Your task to perform on an android device: remove spam from my inbox in the gmail app Image 0: 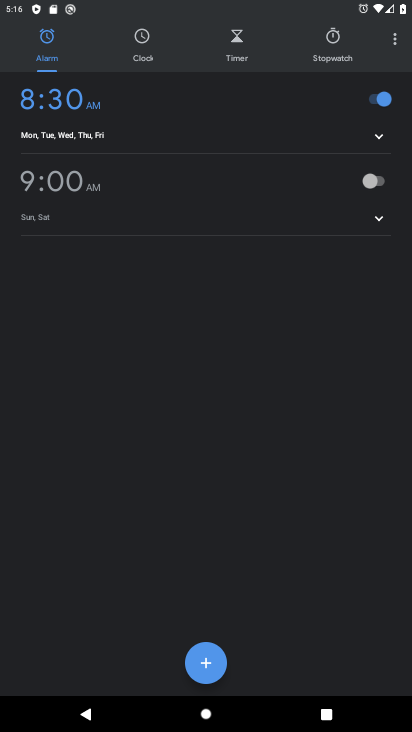
Step 0: press home button
Your task to perform on an android device: remove spam from my inbox in the gmail app Image 1: 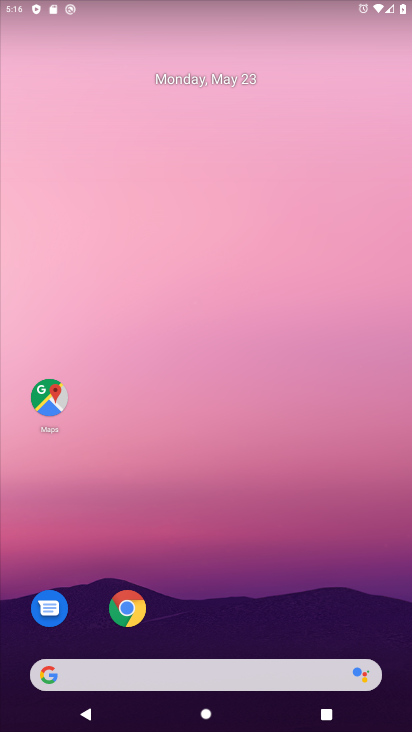
Step 1: drag from (241, 631) to (218, 147)
Your task to perform on an android device: remove spam from my inbox in the gmail app Image 2: 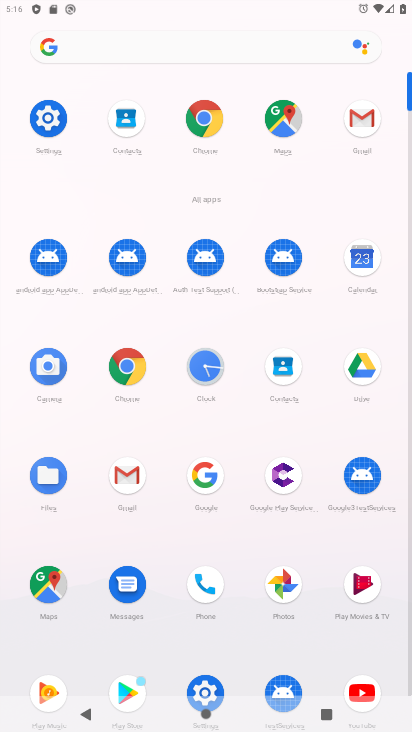
Step 2: click (353, 128)
Your task to perform on an android device: remove spam from my inbox in the gmail app Image 3: 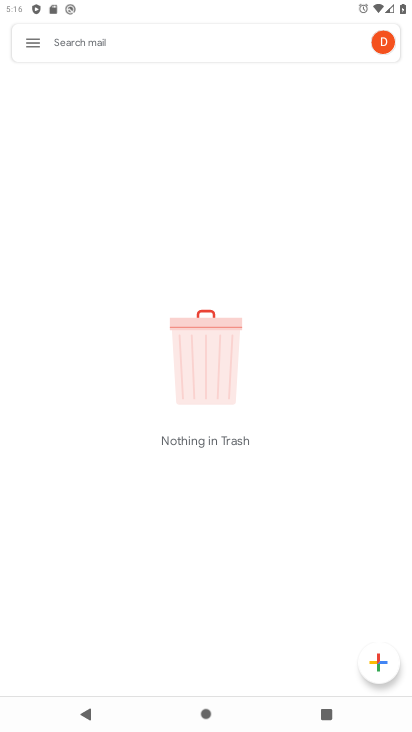
Step 3: click (36, 48)
Your task to perform on an android device: remove spam from my inbox in the gmail app Image 4: 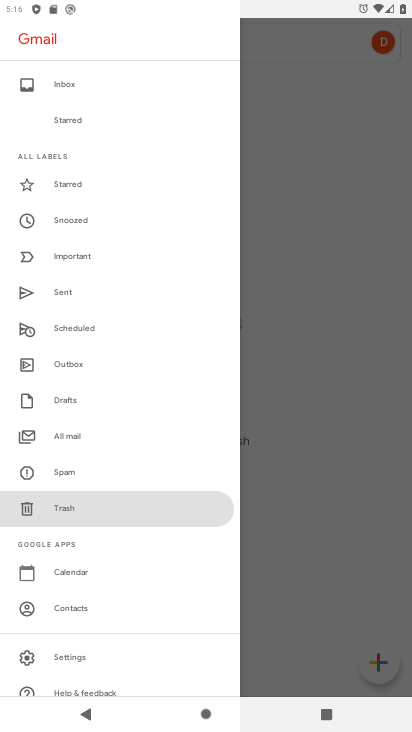
Step 4: click (72, 465)
Your task to perform on an android device: remove spam from my inbox in the gmail app Image 5: 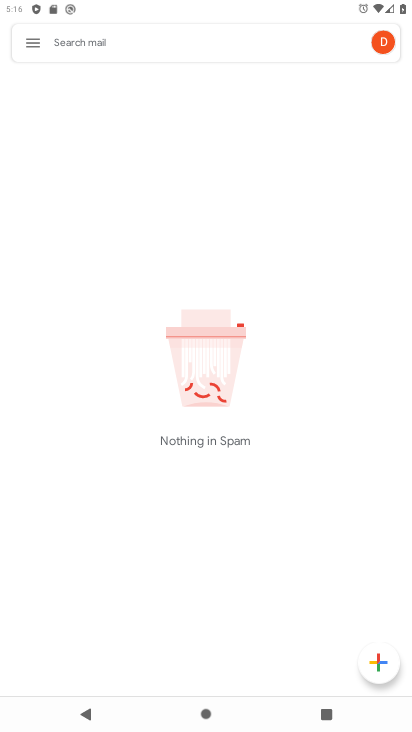
Step 5: task complete